Your task to perform on an android device: turn pop-ups off in chrome Image 0: 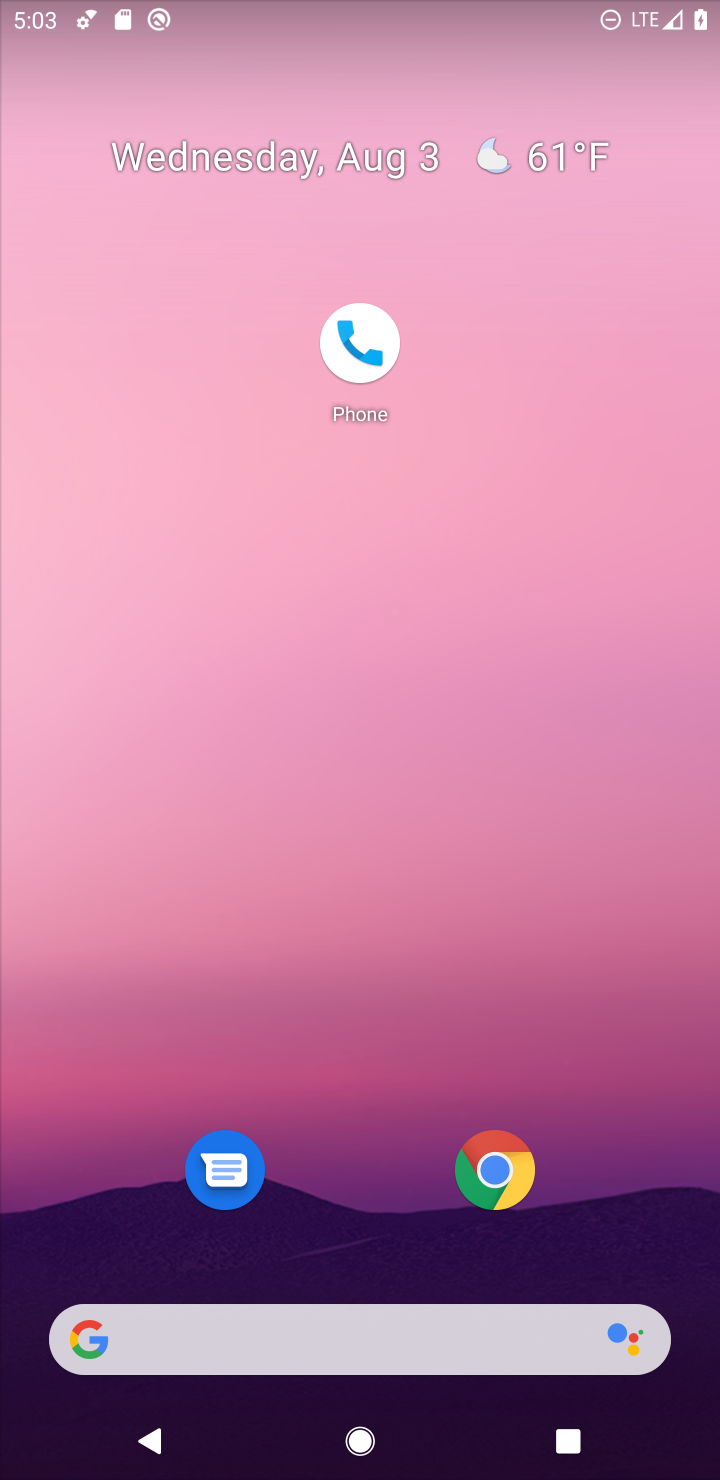
Step 0: press back button
Your task to perform on an android device: turn pop-ups off in chrome Image 1: 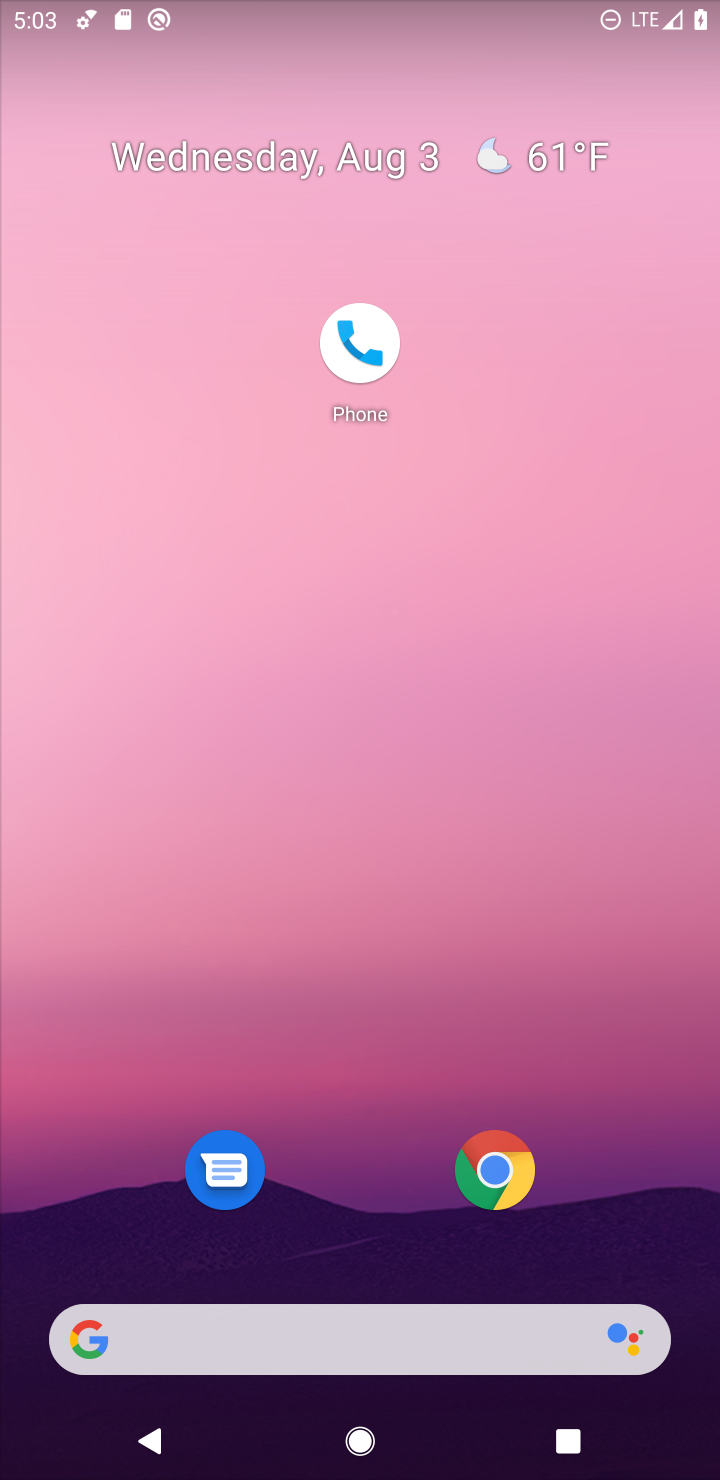
Step 1: click (485, 1165)
Your task to perform on an android device: turn pop-ups off in chrome Image 2: 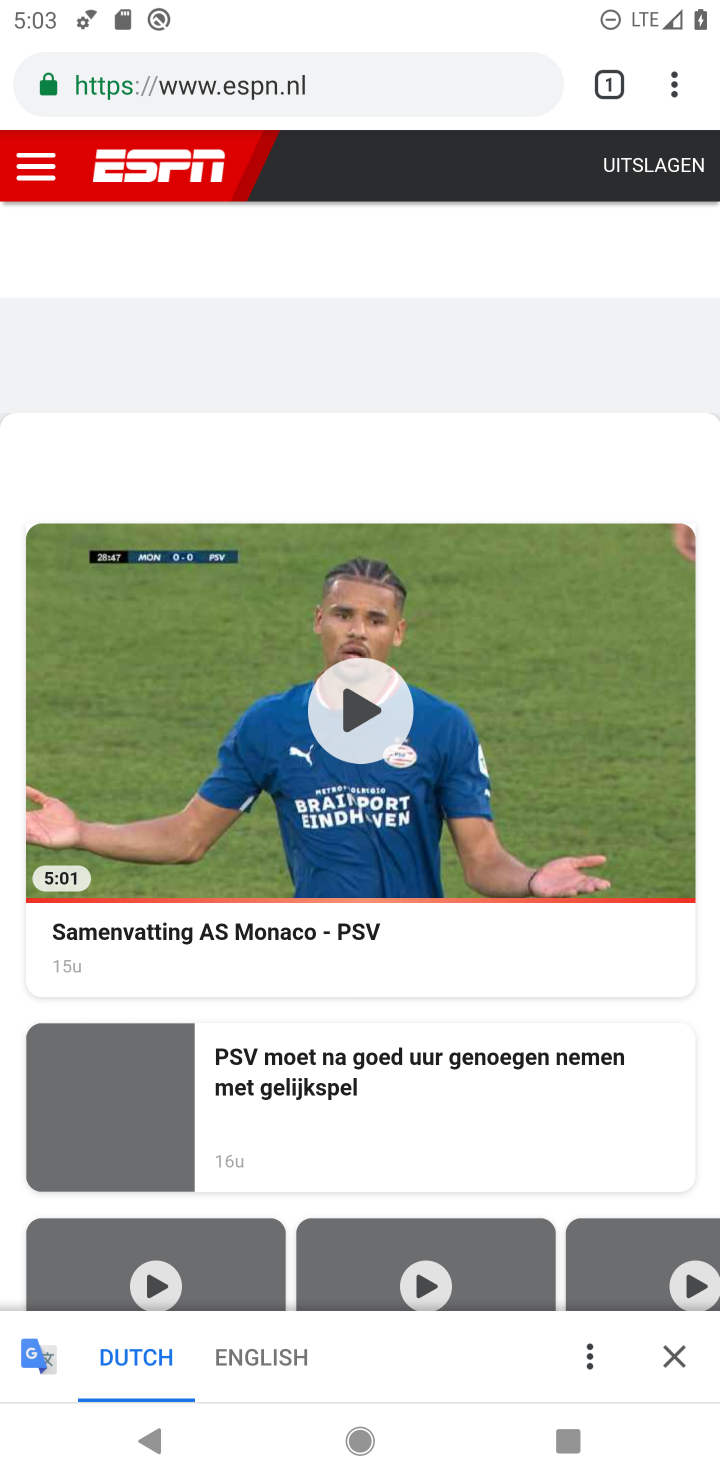
Step 2: click (675, 81)
Your task to perform on an android device: turn pop-ups off in chrome Image 3: 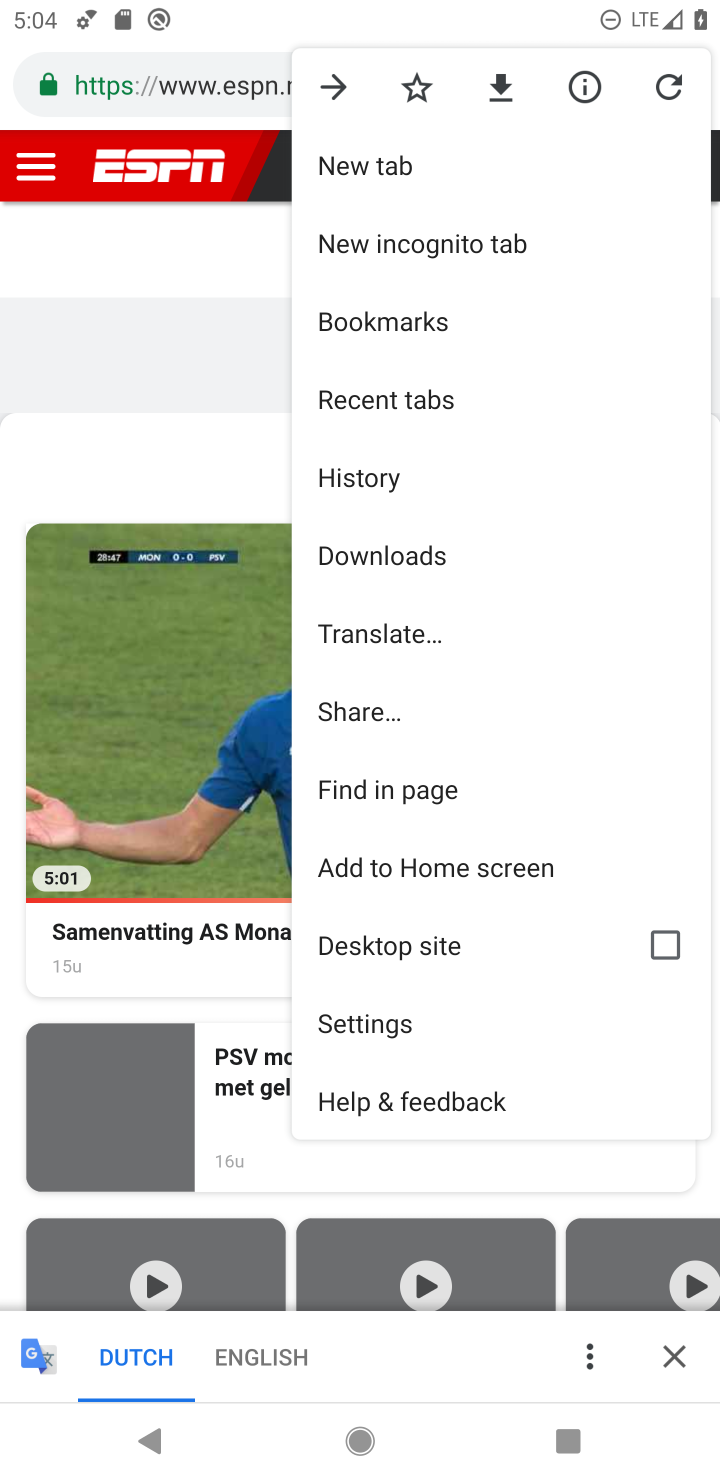
Step 3: click (341, 1030)
Your task to perform on an android device: turn pop-ups off in chrome Image 4: 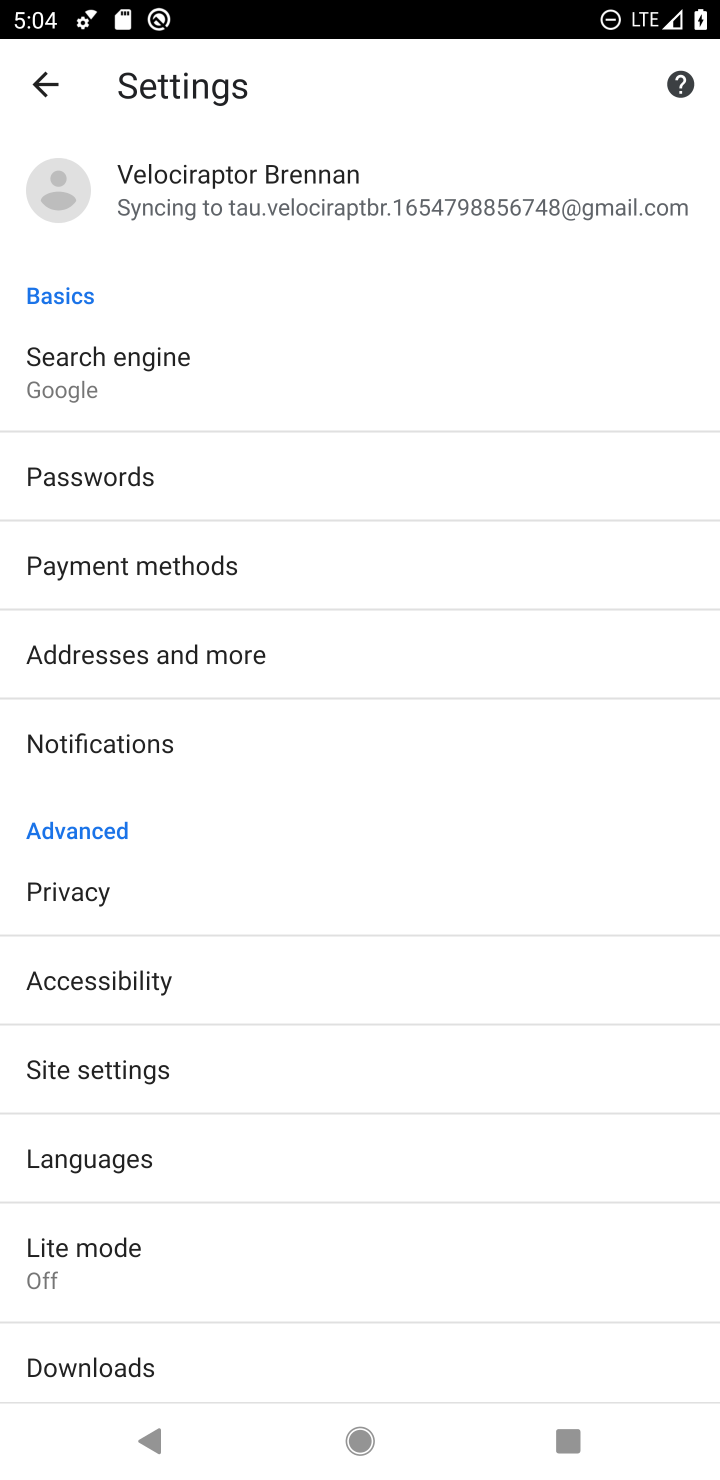
Step 4: click (113, 1072)
Your task to perform on an android device: turn pop-ups off in chrome Image 5: 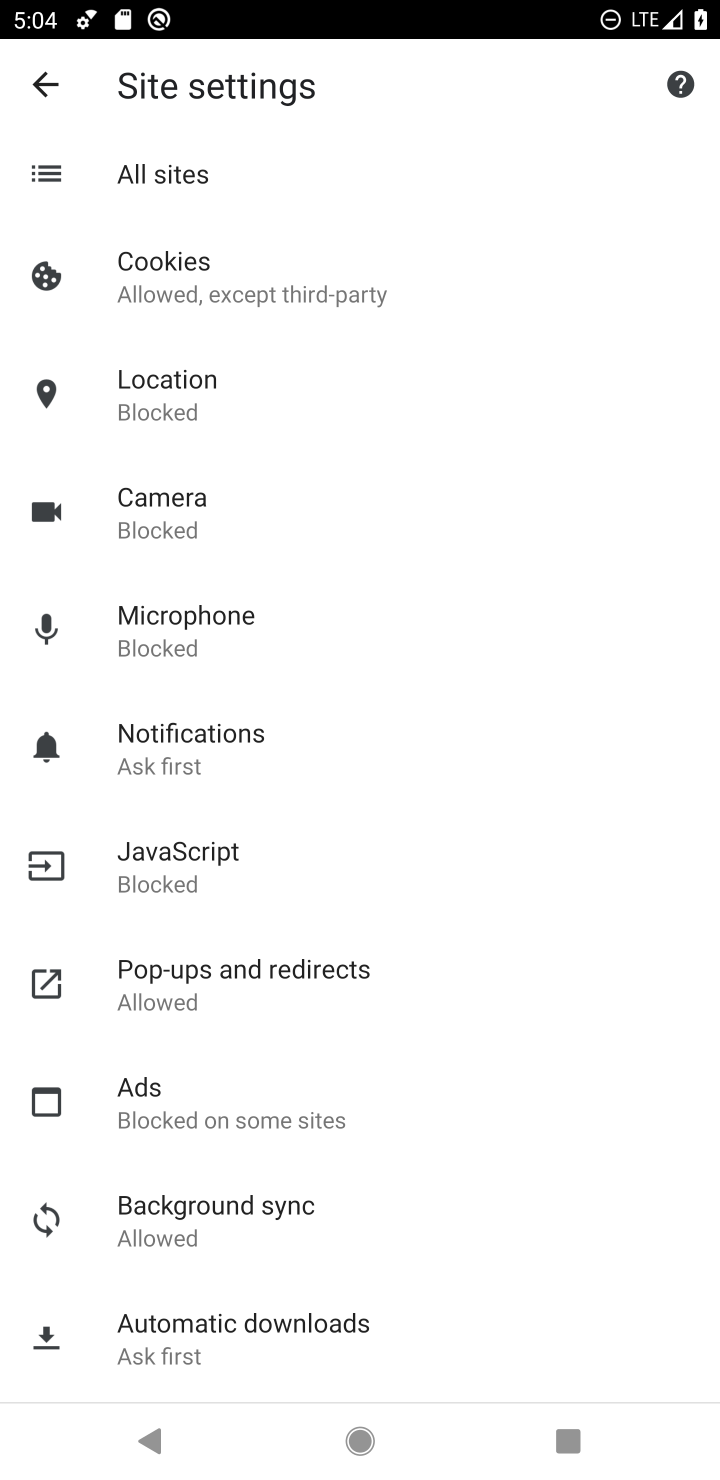
Step 5: click (190, 967)
Your task to perform on an android device: turn pop-ups off in chrome Image 6: 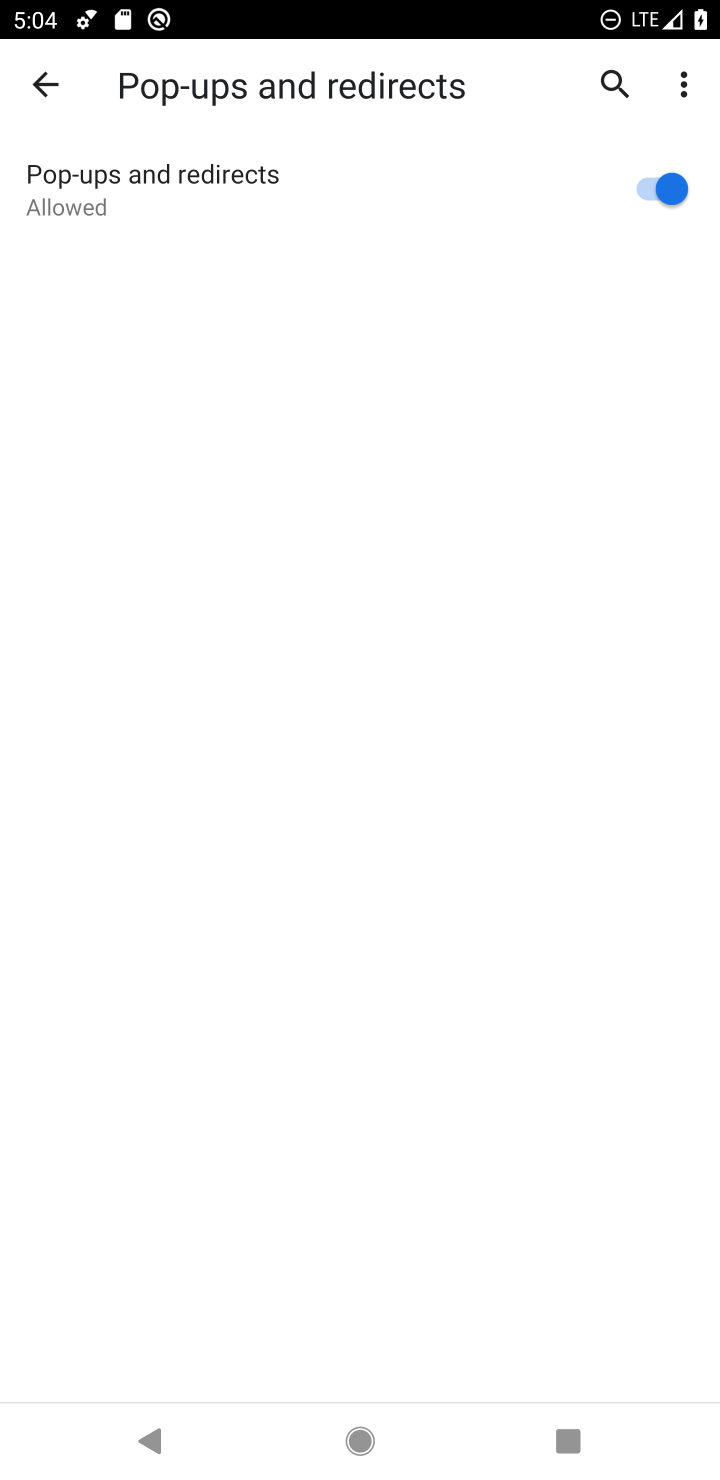
Step 6: click (656, 189)
Your task to perform on an android device: turn pop-ups off in chrome Image 7: 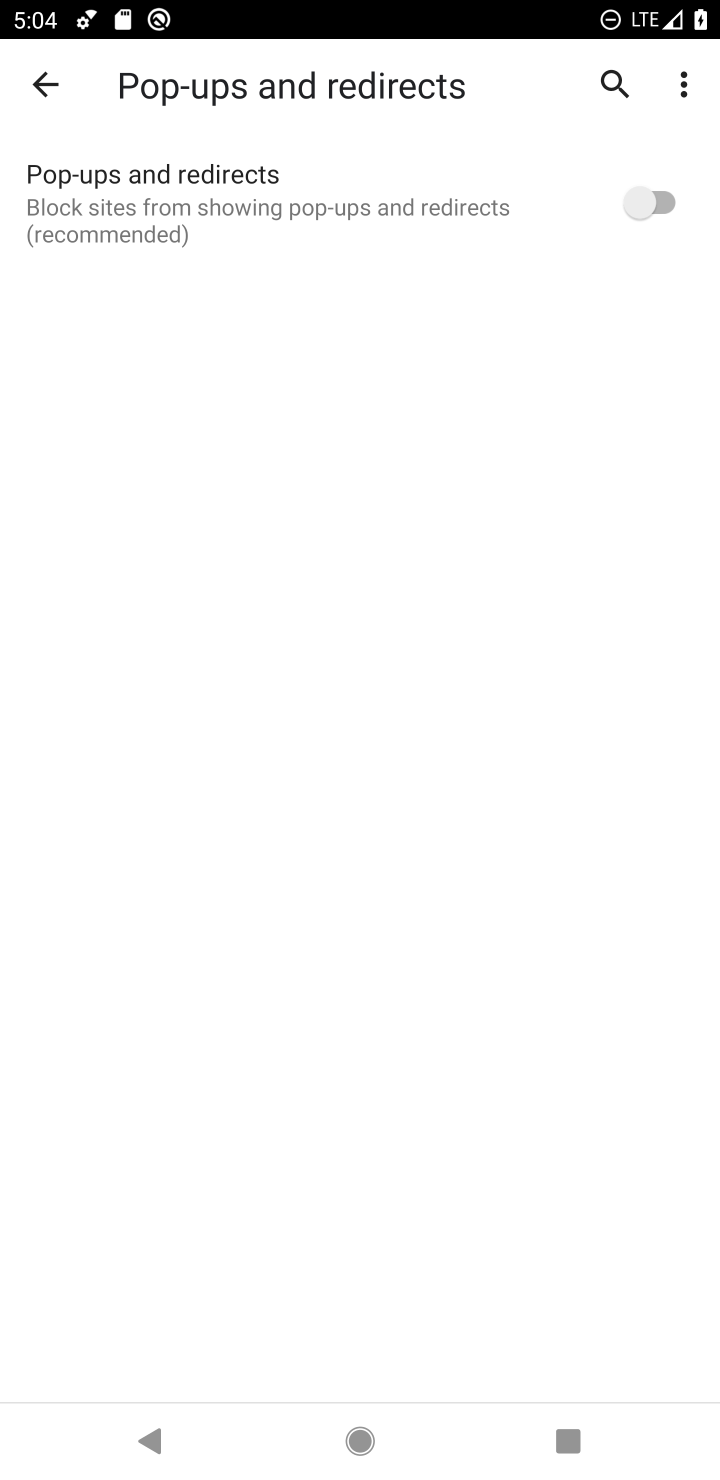
Step 7: task complete